Your task to perform on an android device: Search for vegetarian restaurants on Maps Image 0: 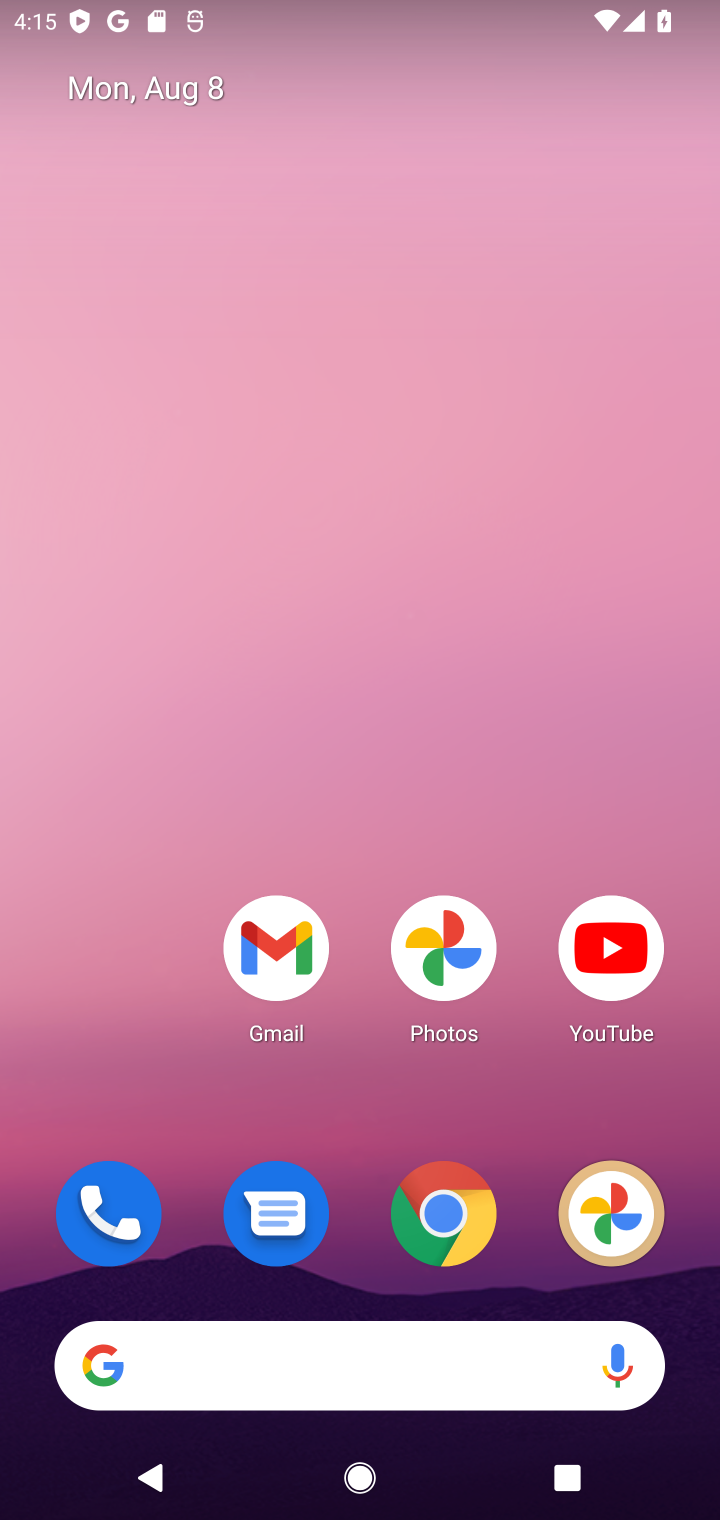
Step 0: drag from (338, 1103) to (416, 204)
Your task to perform on an android device: Search for vegetarian restaurants on Maps Image 1: 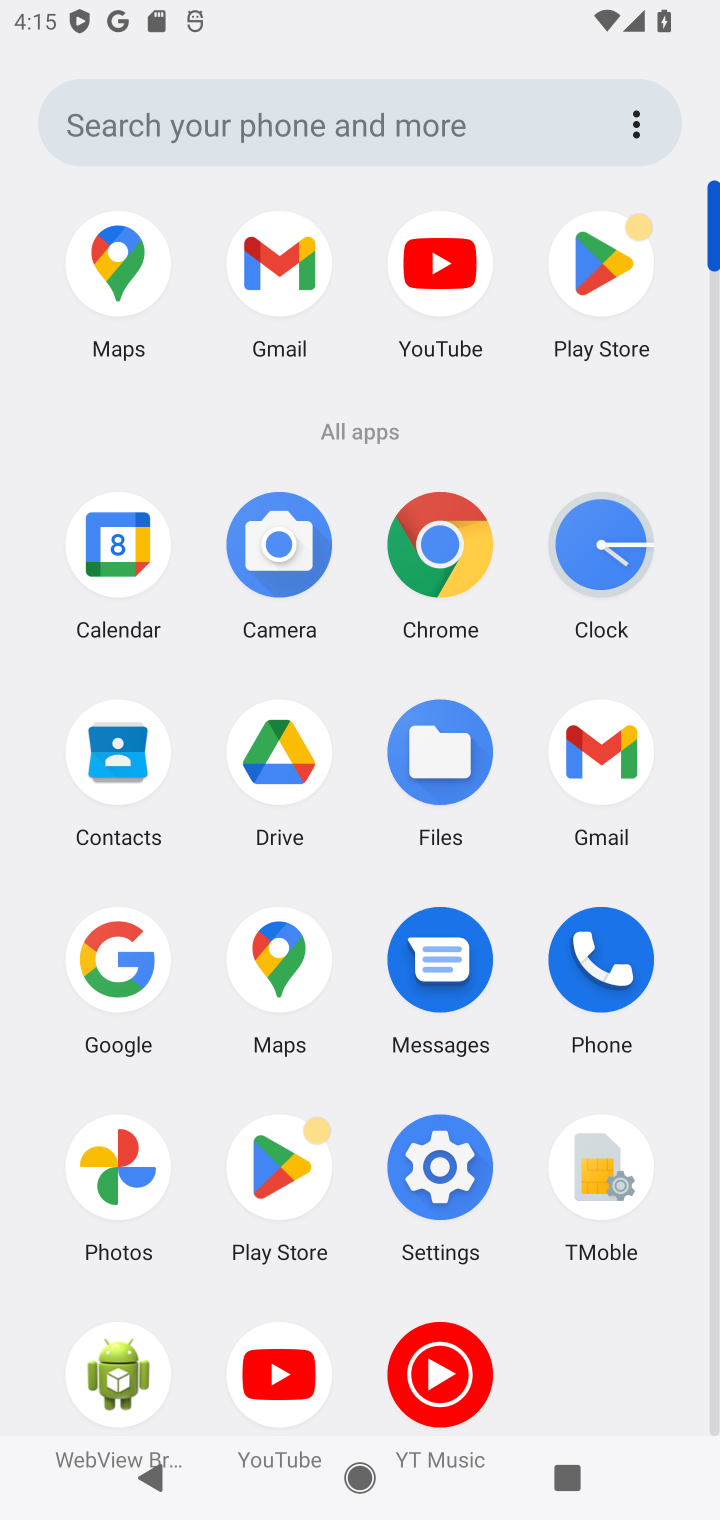
Step 1: click (122, 249)
Your task to perform on an android device: Search for vegetarian restaurants on Maps Image 2: 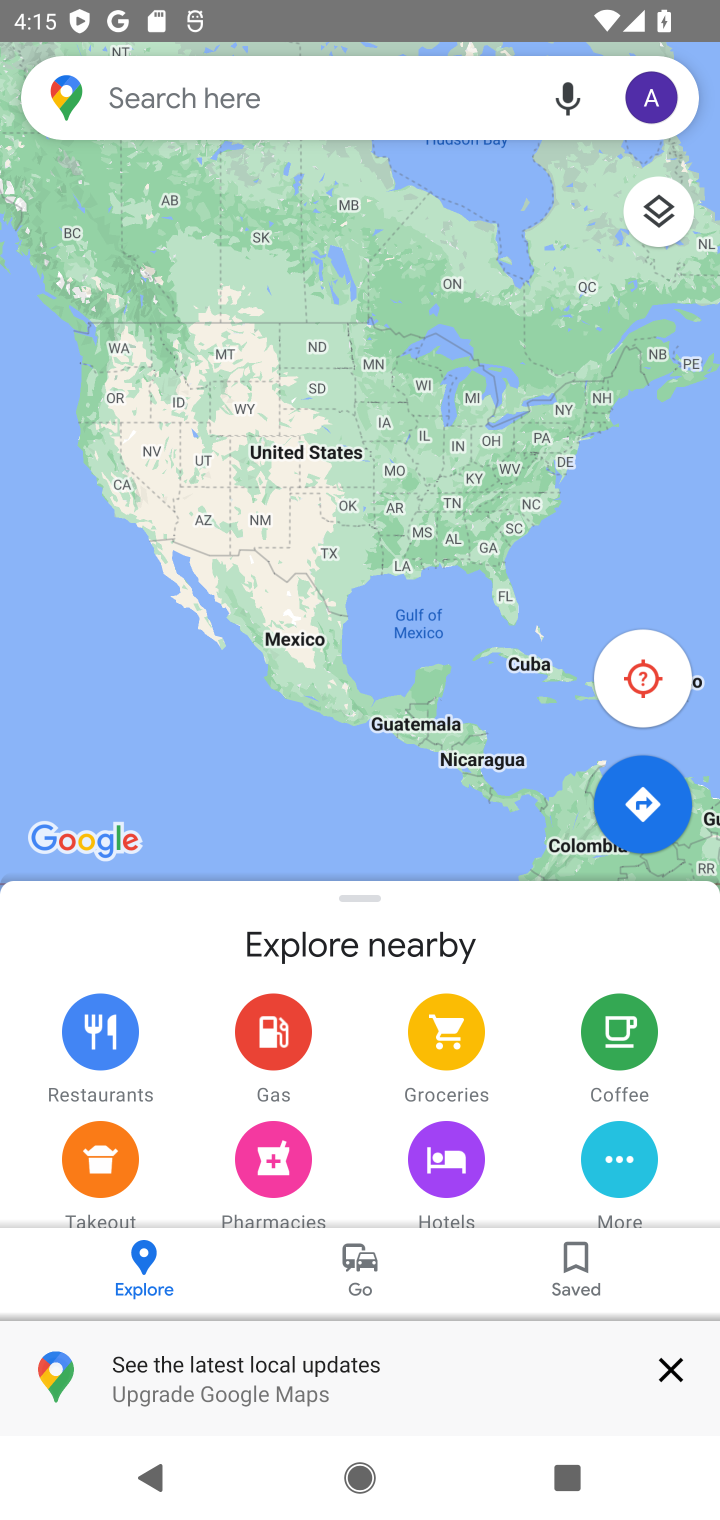
Step 2: click (299, 94)
Your task to perform on an android device: Search for vegetarian restaurants on Maps Image 3: 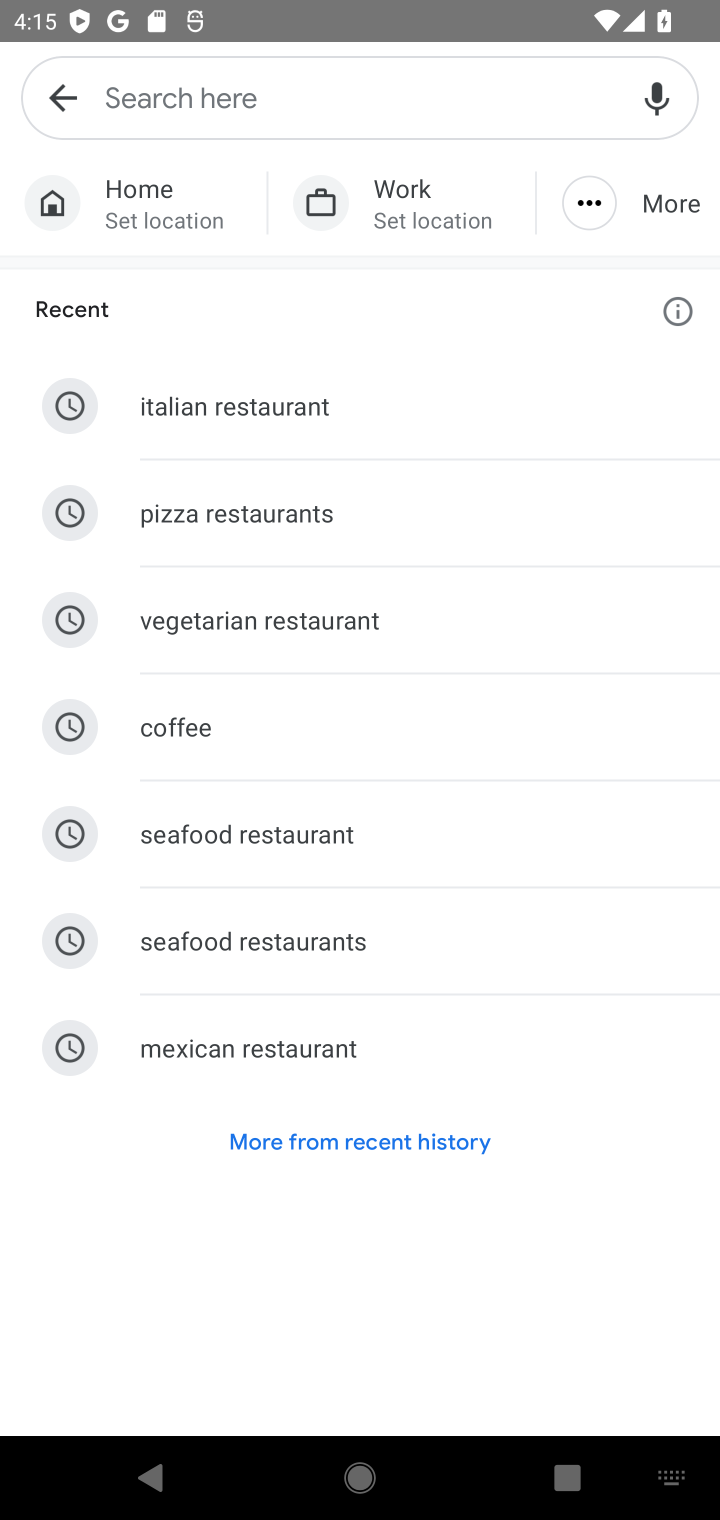
Step 3: type "vegetarian restaurants"
Your task to perform on an android device: Search for vegetarian restaurants on Maps Image 4: 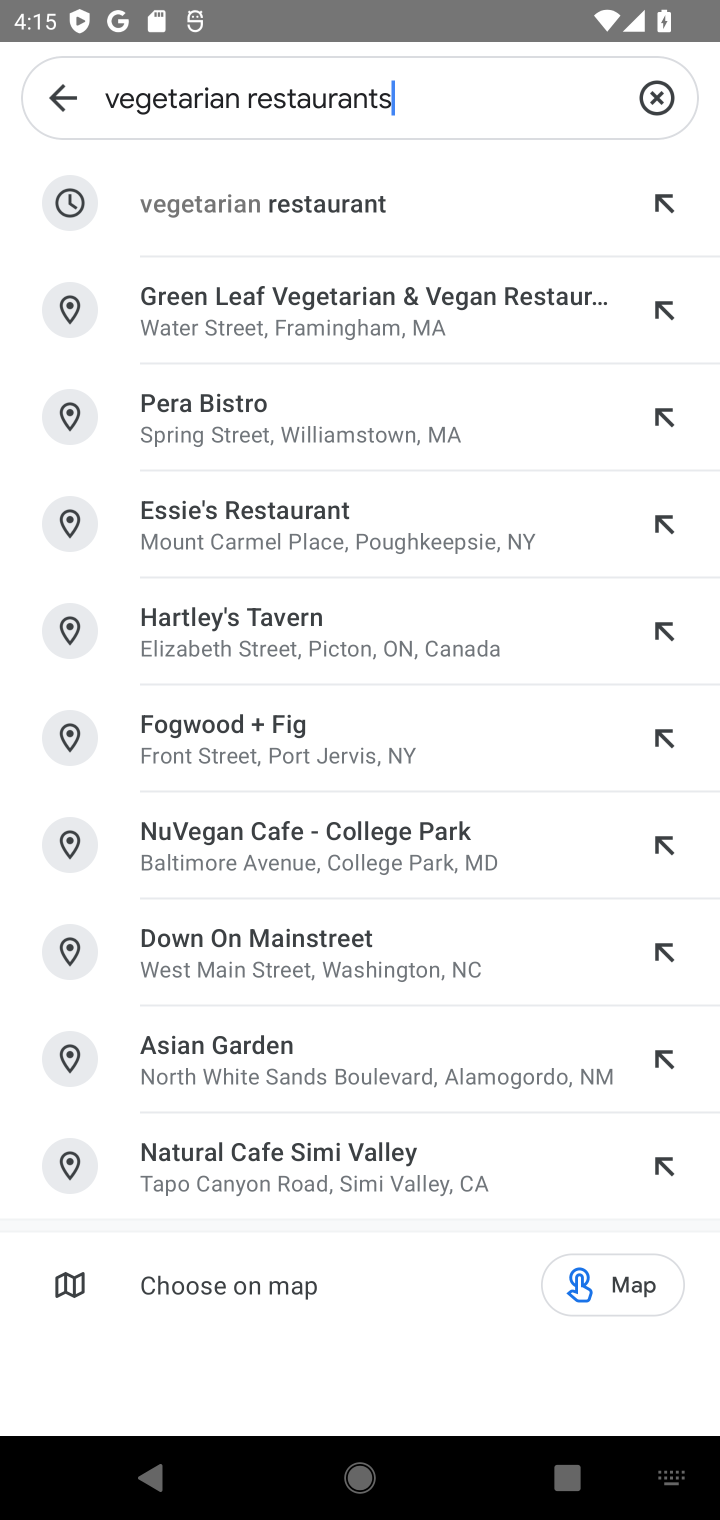
Step 4: click (232, 211)
Your task to perform on an android device: Search for vegetarian restaurants on Maps Image 5: 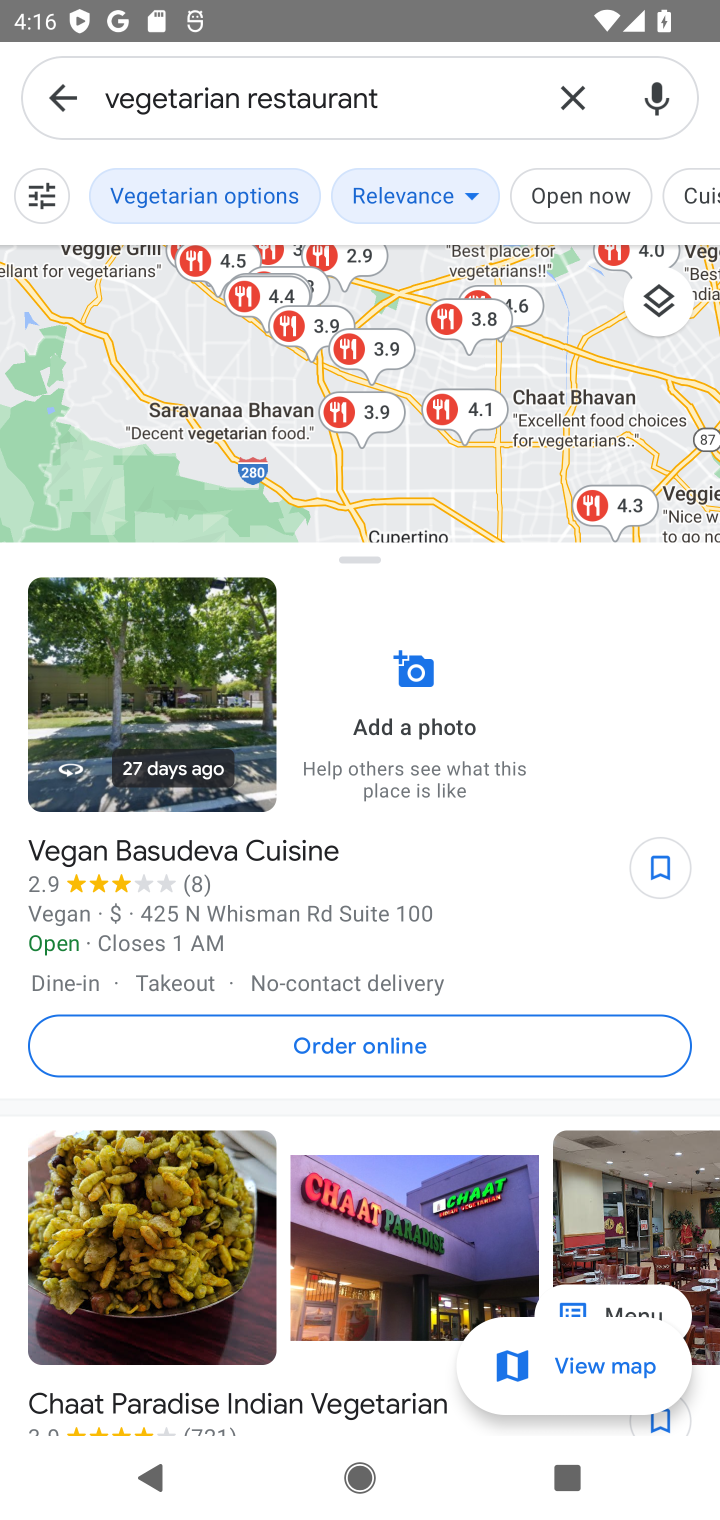
Step 5: task complete